Your task to perform on an android device: add a contact Image 0: 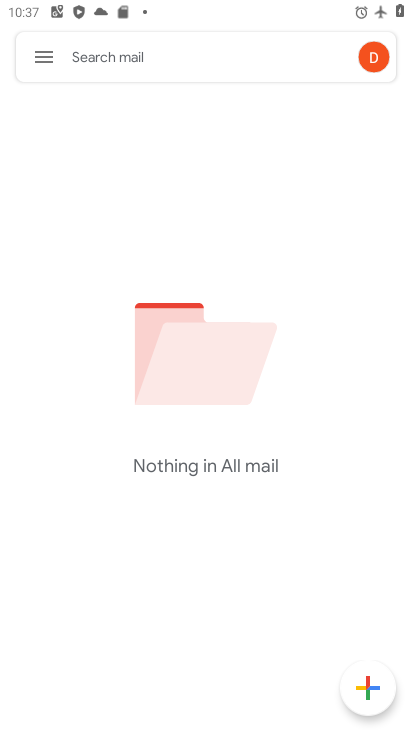
Step 0: press home button
Your task to perform on an android device: add a contact Image 1: 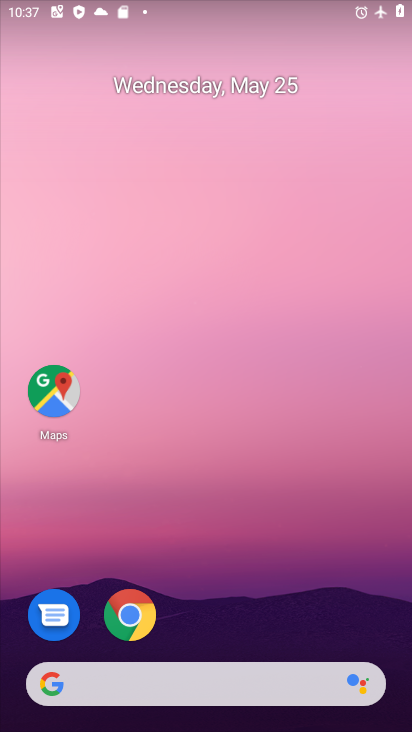
Step 1: drag from (239, 526) to (205, 52)
Your task to perform on an android device: add a contact Image 2: 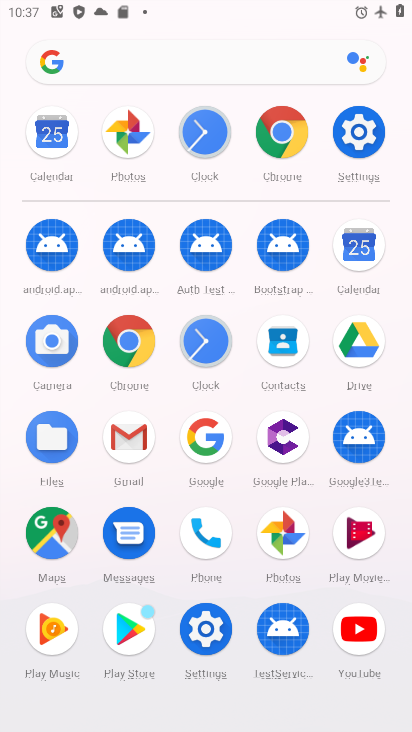
Step 2: click (282, 344)
Your task to perform on an android device: add a contact Image 3: 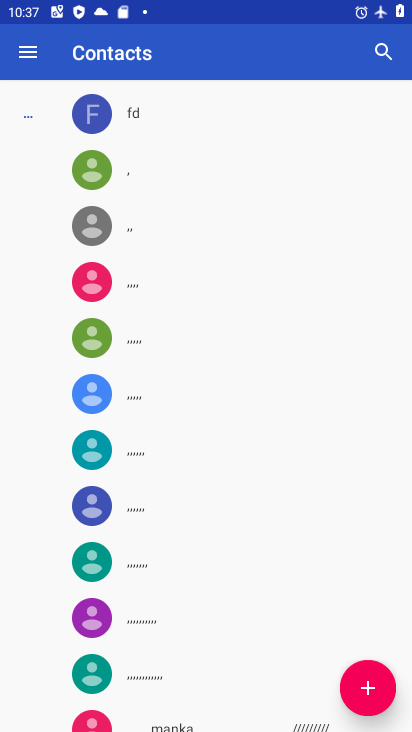
Step 3: click (369, 688)
Your task to perform on an android device: add a contact Image 4: 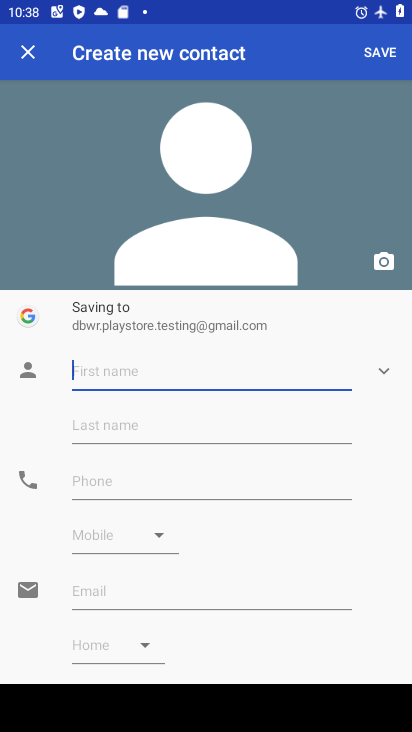
Step 4: type "Yudhishthir"
Your task to perform on an android device: add a contact Image 5: 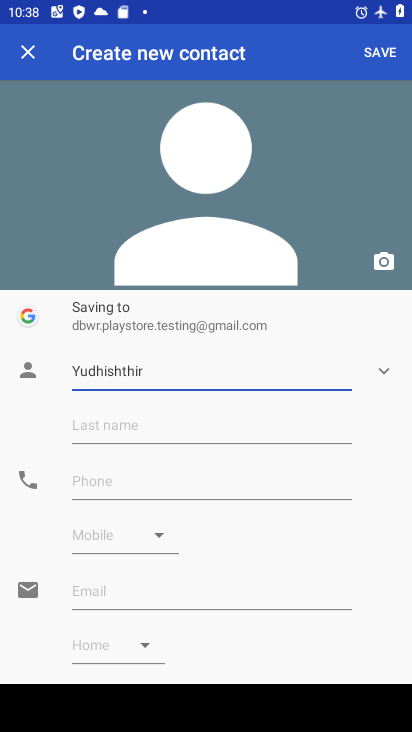
Step 5: click (302, 470)
Your task to perform on an android device: add a contact Image 6: 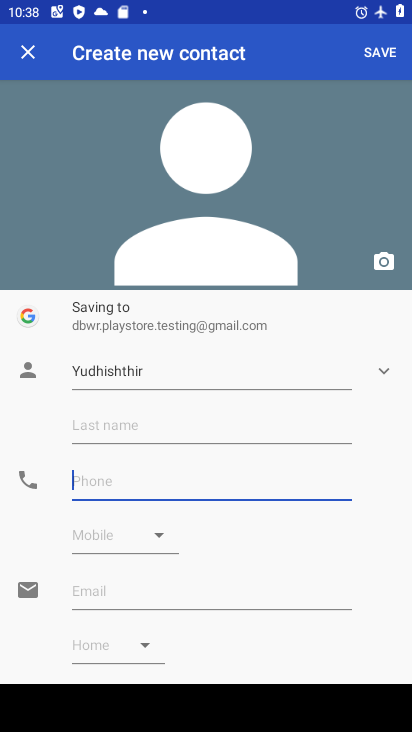
Step 6: type "011222446688"
Your task to perform on an android device: add a contact Image 7: 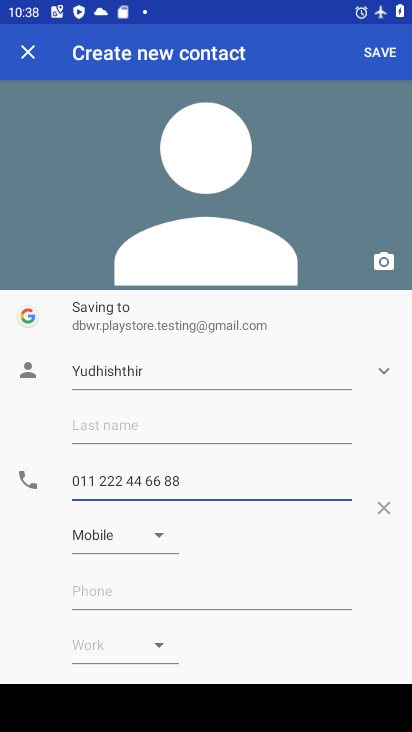
Step 7: click (381, 44)
Your task to perform on an android device: add a contact Image 8: 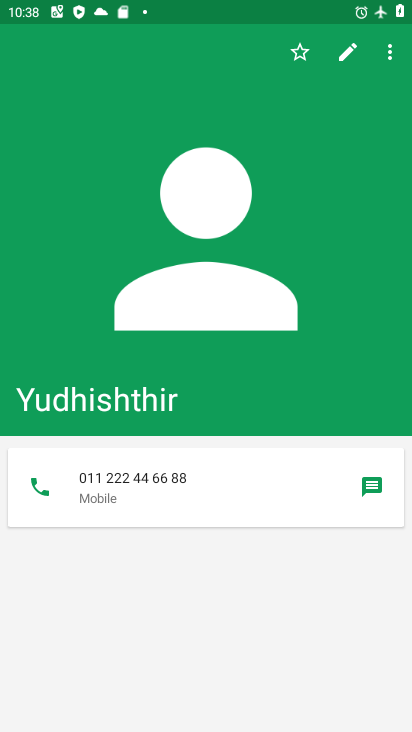
Step 8: task complete